Your task to perform on an android device: delete browsing data in the chrome app Image 0: 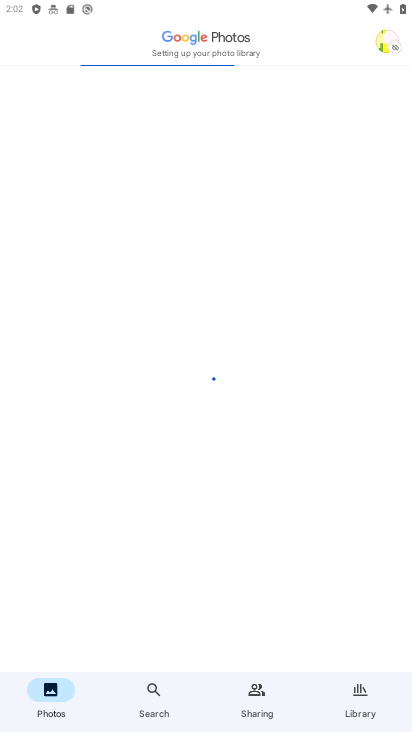
Step 0: press home button
Your task to perform on an android device: delete browsing data in the chrome app Image 1: 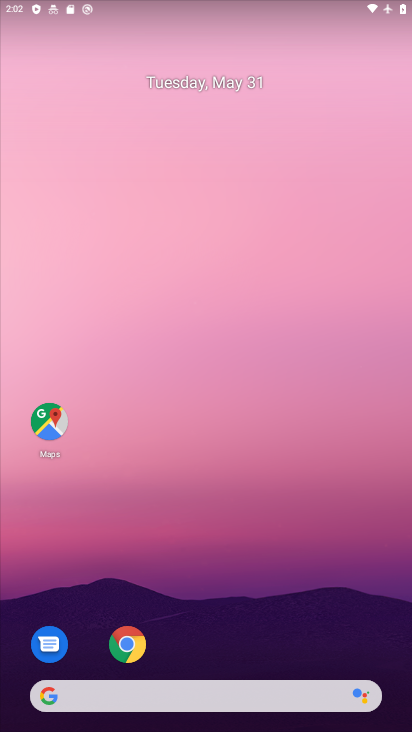
Step 1: click (124, 645)
Your task to perform on an android device: delete browsing data in the chrome app Image 2: 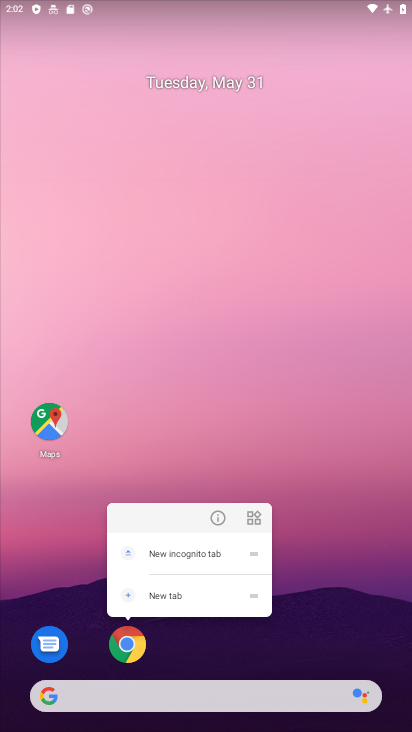
Step 2: click (124, 645)
Your task to perform on an android device: delete browsing data in the chrome app Image 3: 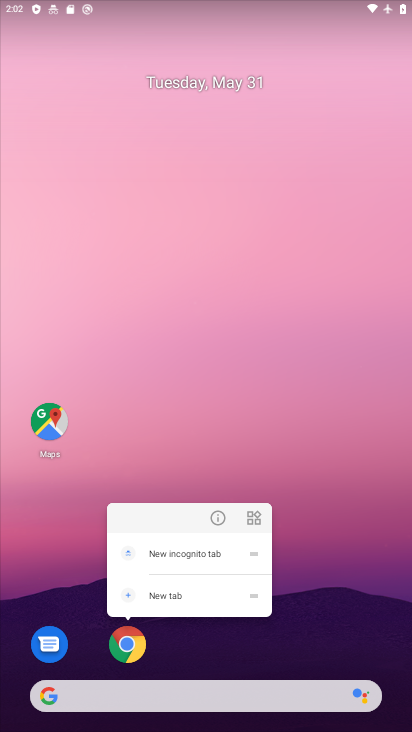
Step 3: click (133, 645)
Your task to perform on an android device: delete browsing data in the chrome app Image 4: 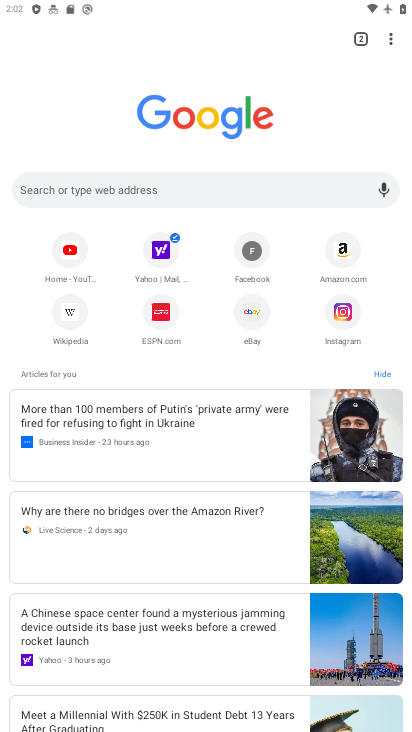
Step 4: drag from (401, 30) to (263, 211)
Your task to perform on an android device: delete browsing data in the chrome app Image 5: 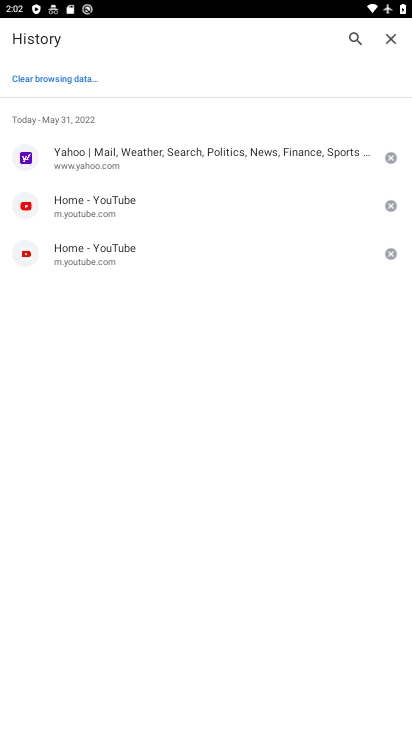
Step 5: click (91, 74)
Your task to perform on an android device: delete browsing data in the chrome app Image 6: 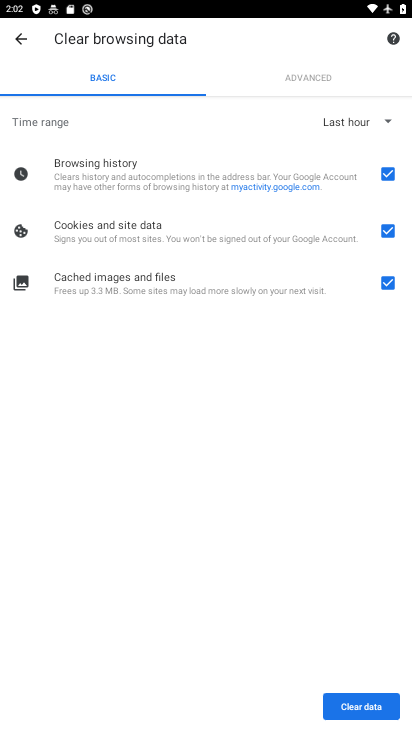
Step 6: click (356, 123)
Your task to perform on an android device: delete browsing data in the chrome app Image 7: 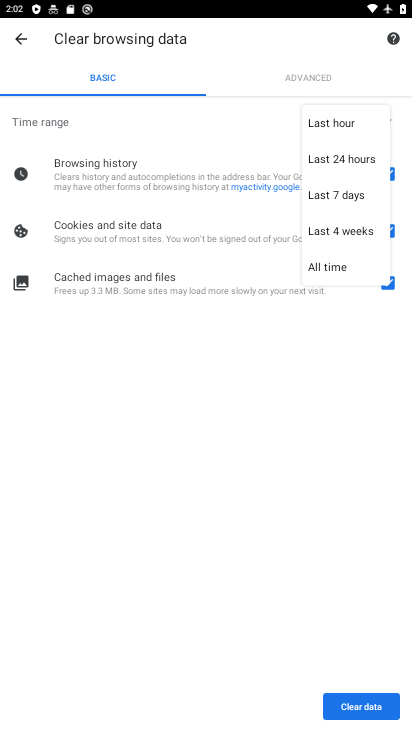
Step 7: click (331, 262)
Your task to perform on an android device: delete browsing data in the chrome app Image 8: 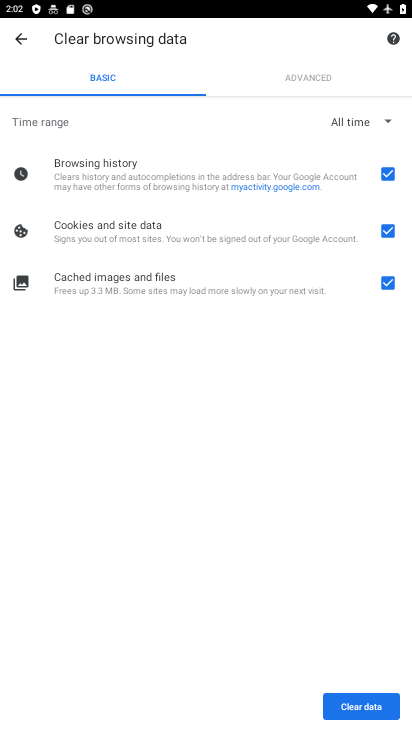
Step 8: click (368, 700)
Your task to perform on an android device: delete browsing data in the chrome app Image 9: 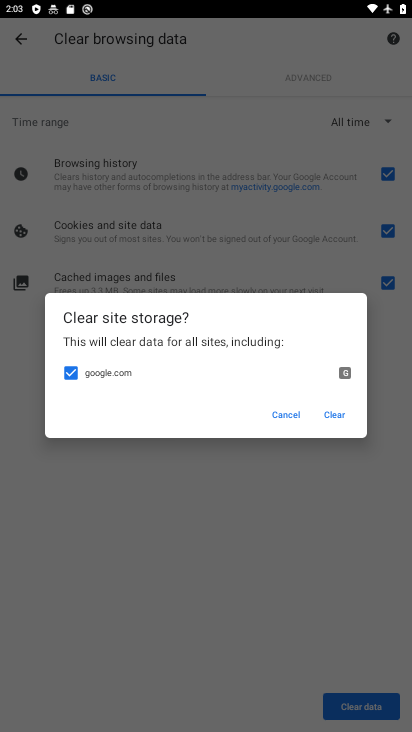
Step 9: click (343, 418)
Your task to perform on an android device: delete browsing data in the chrome app Image 10: 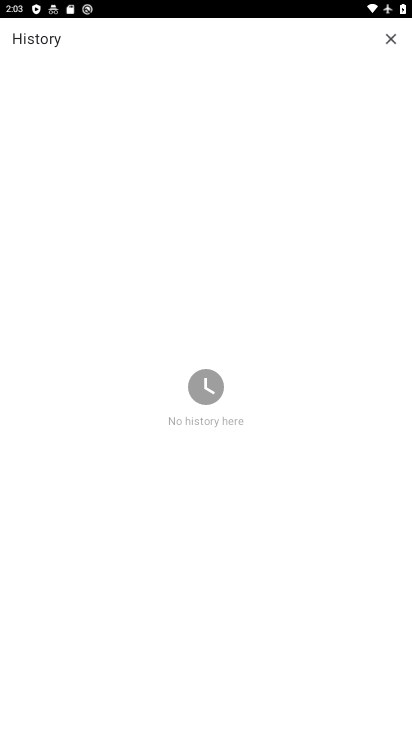
Step 10: task complete